Your task to perform on an android device: Show me productivity apps on the Play Store Image 0: 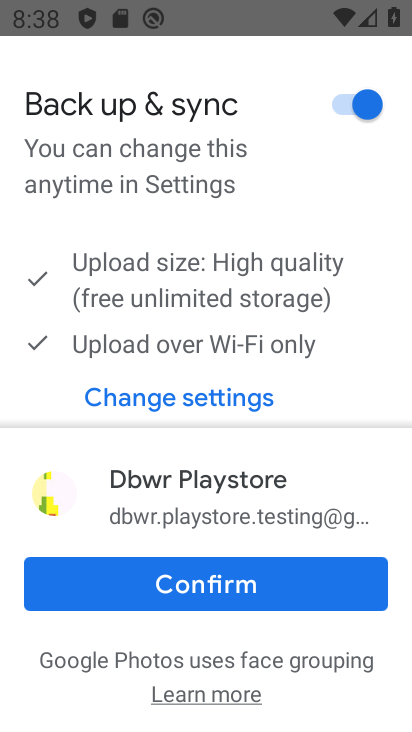
Step 0: press home button
Your task to perform on an android device: Show me productivity apps on the Play Store Image 1: 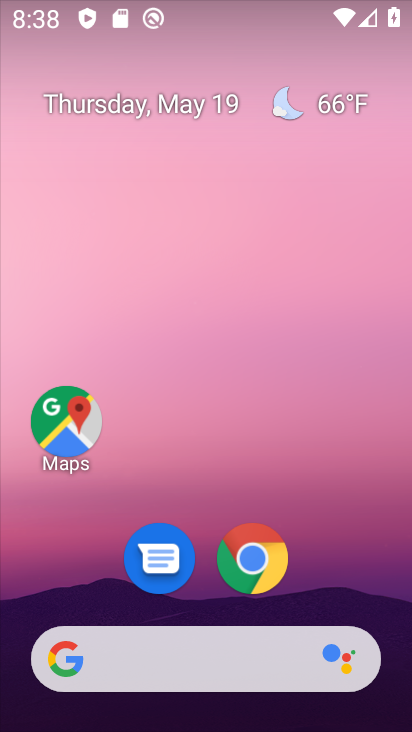
Step 1: drag from (198, 592) to (205, 257)
Your task to perform on an android device: Show me productivity apps on the Play Store Image 2: 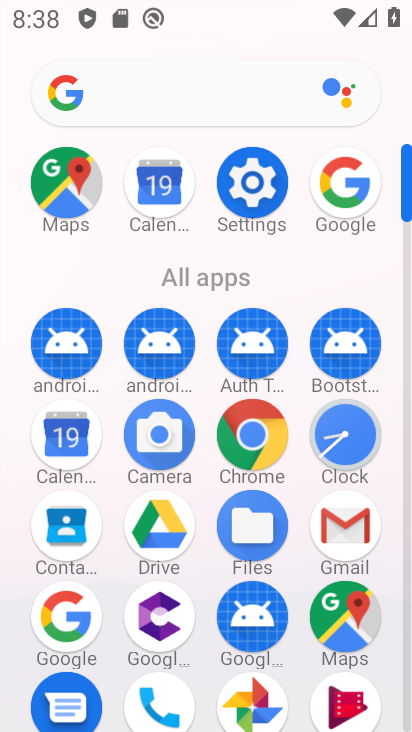
Step 2: drag from (285, 592) to (292, 272)
Your task to perform on an android device: Show me productivity apps on the Play Store Image 3: 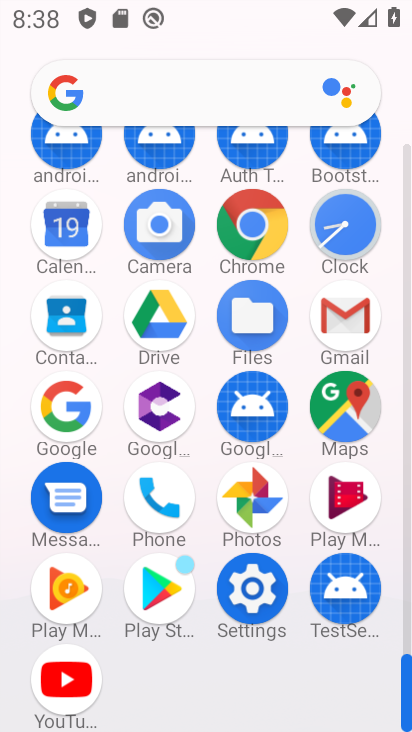
Step 3: click (172, 584)
Your task to perform on an android device: Show me productivity apps on the Play Store Image 4: 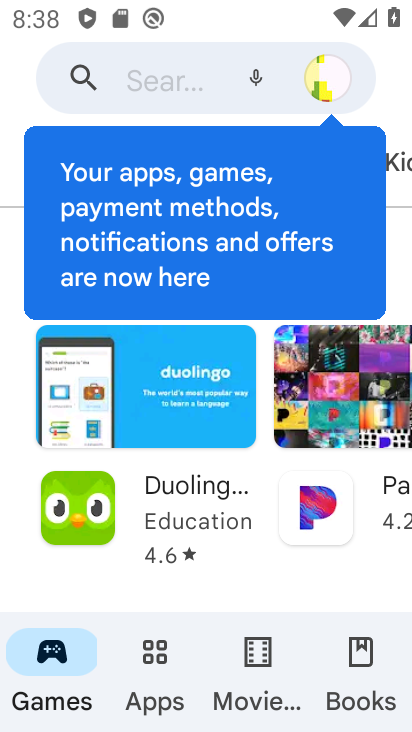
Step 4: click (166, 661)
Your task to perform on an android device: Show me productivity apps on the Play Store Image 5: 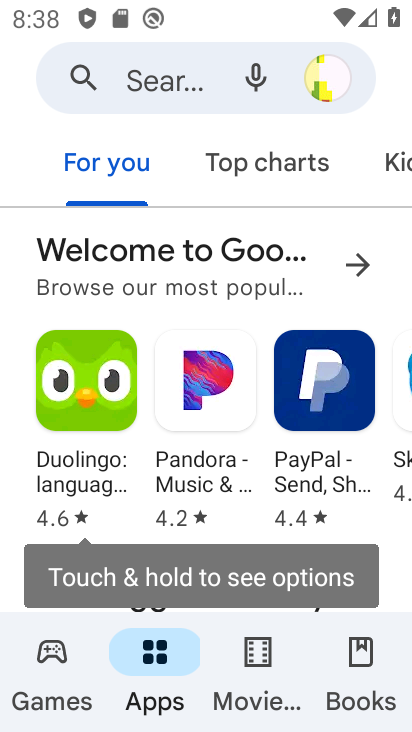
Step 5: drag from (328, 161) to (99, 165)
Your task to perform on an android device: Show me productivity apps on the Play Store Image 6: 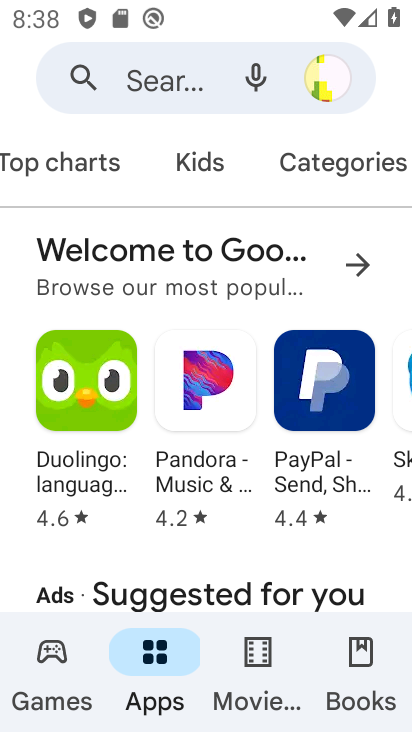
Step 6: click (304, 156)
Your task to perform on an android device: Show me productivity apps on the Play Store Image 7: 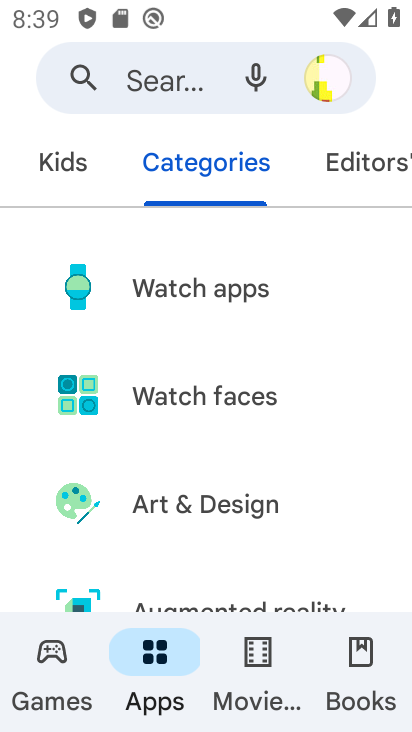
Step 7: drag from (258, 602) to (266, 326)
Your task to perform on an android device: Show me productivity apps on the Play Store Image 8: 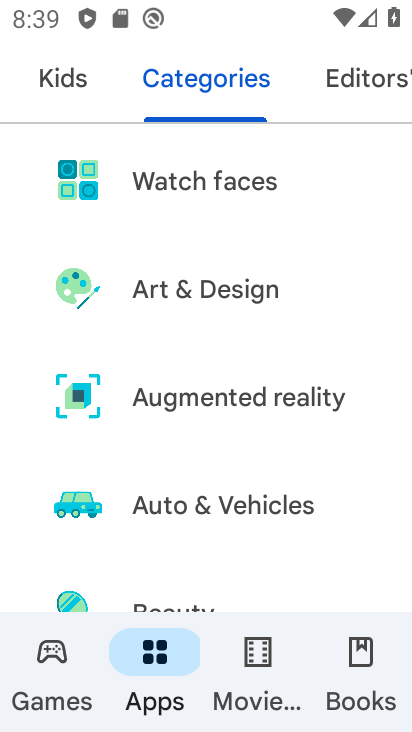
Step 8: drag from (312, 553) to (269, 231)
Your task to perform on an android device: Show me productivity apps on the Play Store Image 9: 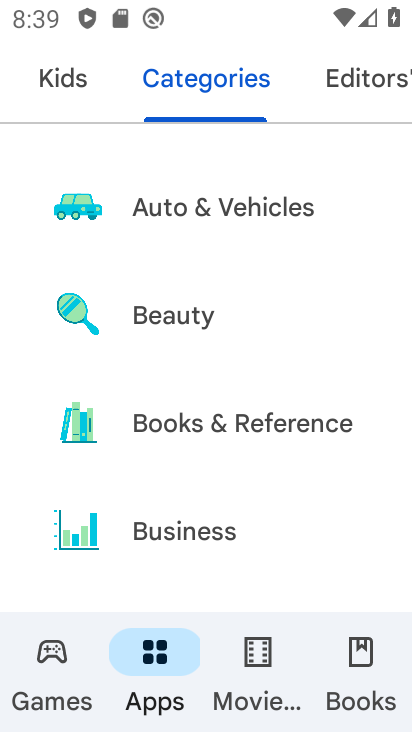
Step 9: drag from (276, 530) to (284, 252)
Your task to perform on an android device: Show me productivity apps on the Play Store Image 10: 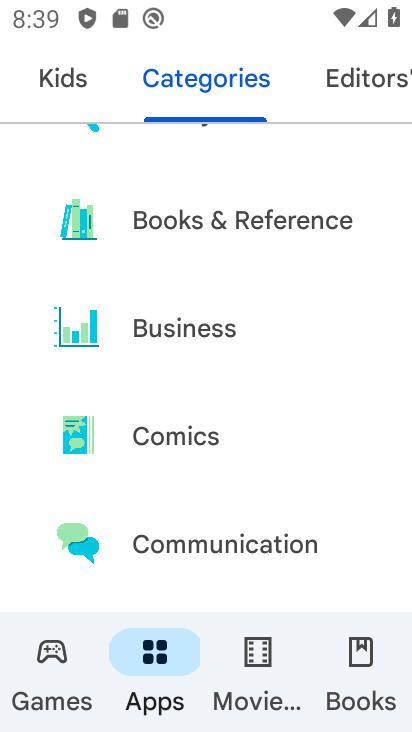
Step 10: drag from (265, 513) to (286, 262)
Your task to perform on an android device: Show me productivity apps on the Play Store Image 11: 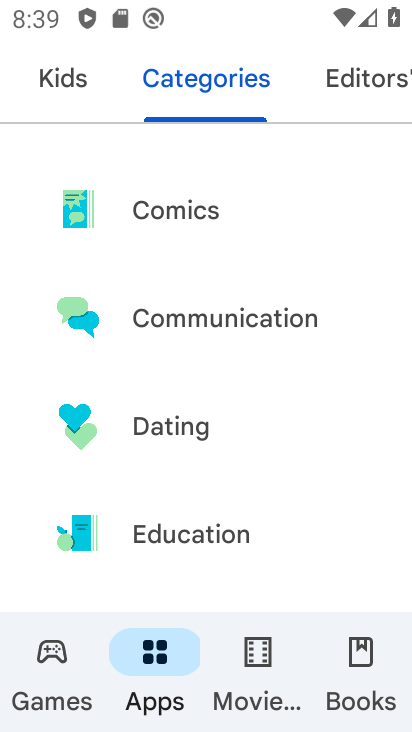
Step 11: drag from (248, 501) to (278, 292)
Your task to perform on an android device: Show me productivity apps on the Play Store Image 12: 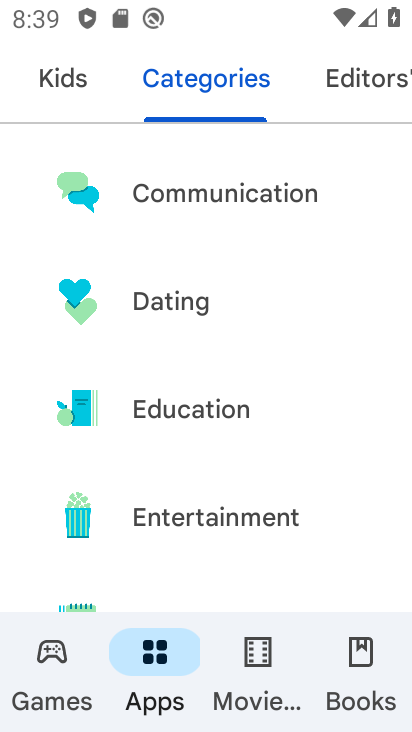
Step 12: drag from (234, 539) to (248, 328)
Your task to perform on an android device: Show me productivity apps on the Play Store Image 13: 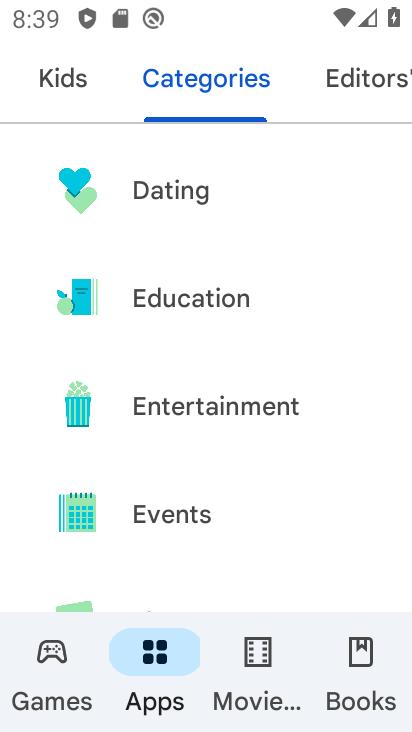
Step 13: drag from (247, 531) to (251, 249)
Your task to perform on an android device: Show me productivity apps on the Play Store Image 14: 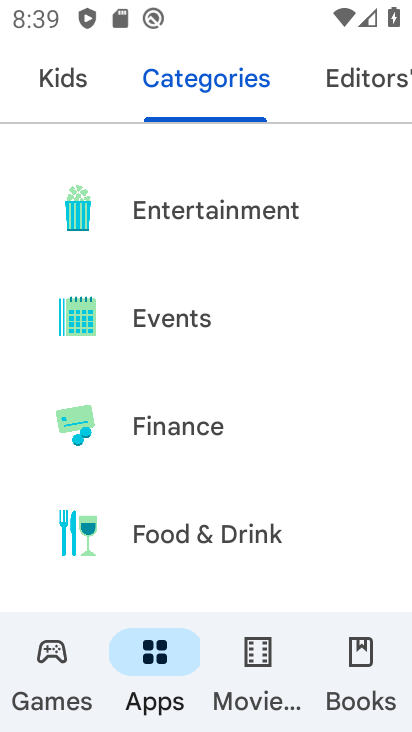
Step 14: drag from (241, 560) to (257, 336)
Your task to perform on an android device: Show me productivity apps on the Play Store Image 15: 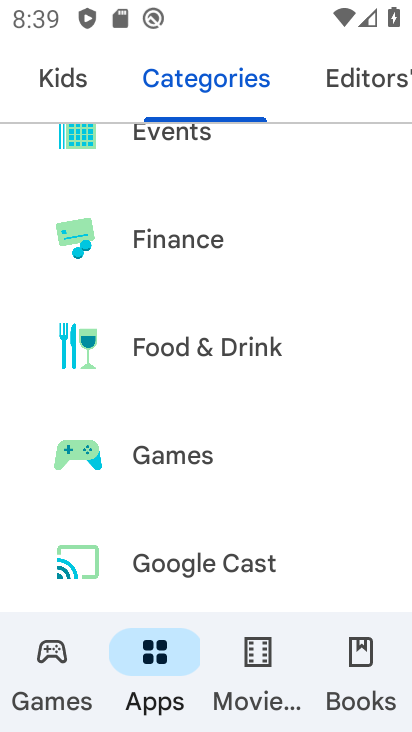
Step 15: drag from (259, 549) to (269, 311)
Your task to perform on an android device: Show me productivity apps on the Play Store Image 16: 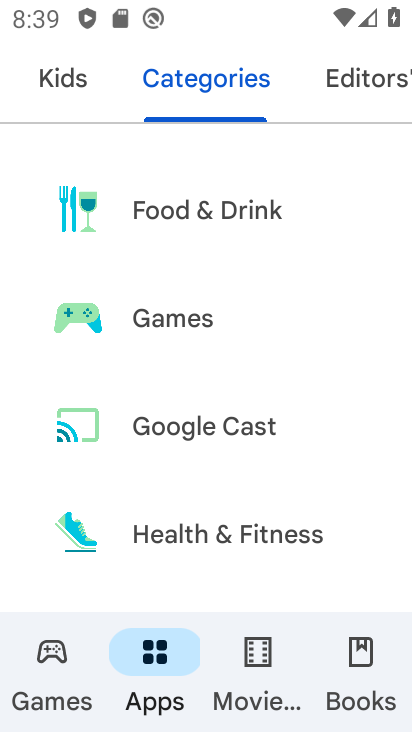
Step 16: drag from (265, 494) to (237, 245)
Your task to perform on an android device: Show me productivity apps on the Play Store Image 17: 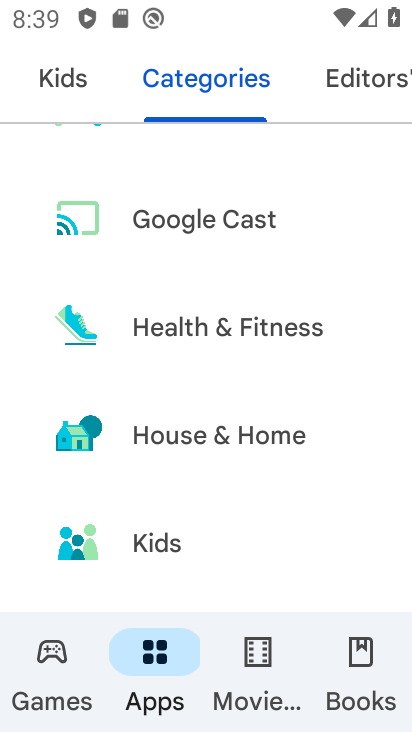
Step 17: drag from (237, 495) to (252, 272)
Your task to perform on an android device: Show me productivity apps on the Play Store Image 18: 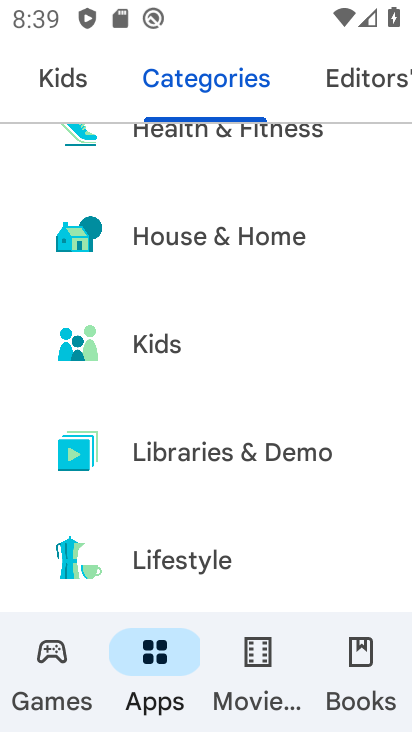
Step 18: drag from (238, 542) to (222, 208)
Your task to perform on an android device: Show me productivity apps on the Play Store Image 19: 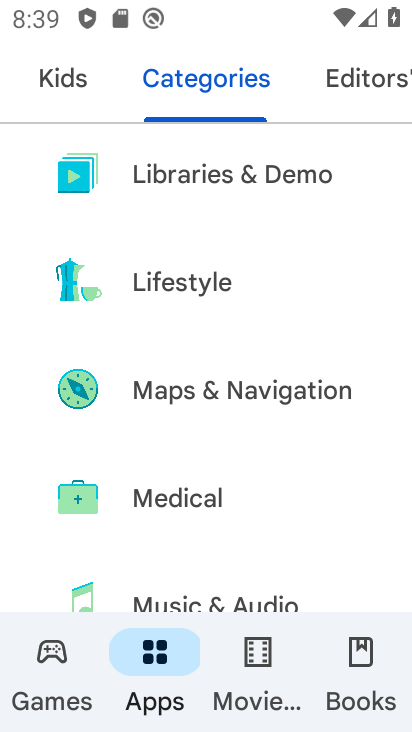
Step 19: drag from (235, 495) to (256, 267)
Your task to perform on an android device: Show me productivity apps on the Play Store Image 20: 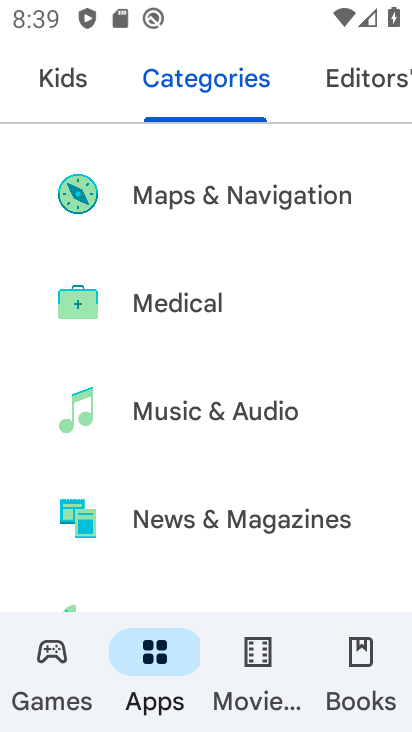
Step 20: drag from (252, 541) to (260, 309)
Your task to perform on an android device: Show me productivity apps on the Play Store Image 21: 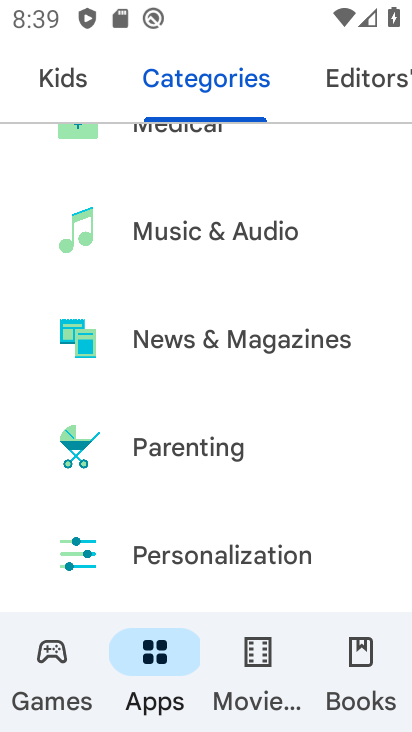
Step 21: drag from (273, 548) to (280, 345)
Your task to perform on an android device: Show me productivity apps on the Play Store Image 22: 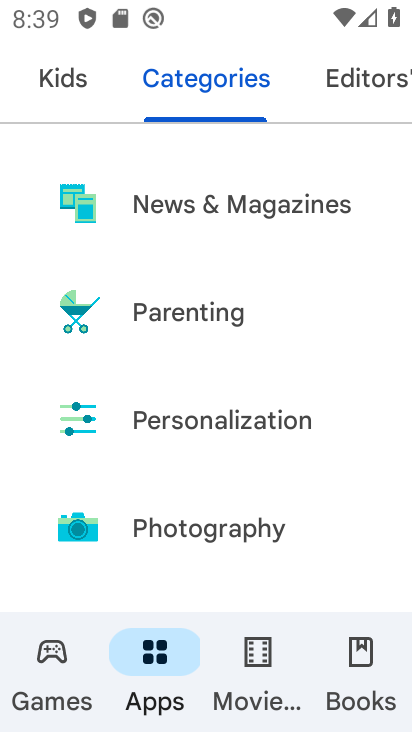
Step 22: drag from (253, 547) to (257, 363)
Your task to perform on an android device: Show me productivity apps on the Play Store Image 23: 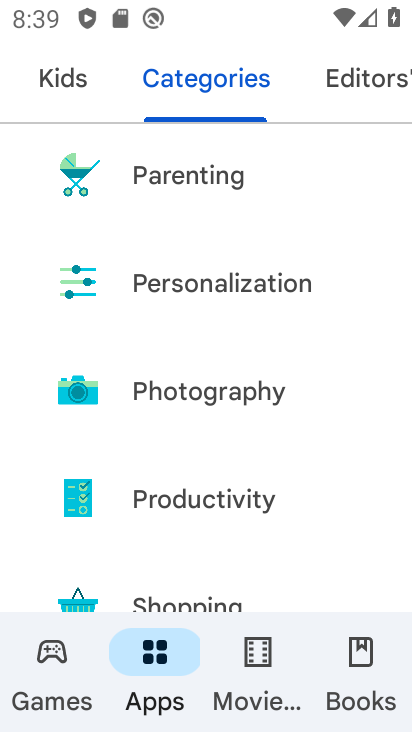
Step 23: click (230, 508)
Your task to perform on an android device: Show me productivity apps on the Play Store Image 24: 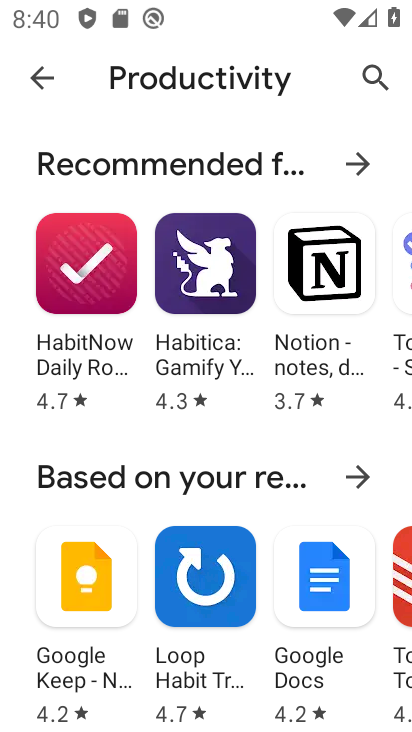
Step 24: task complete